Your task to perform on an android device: turn on airplane mode Image 0: 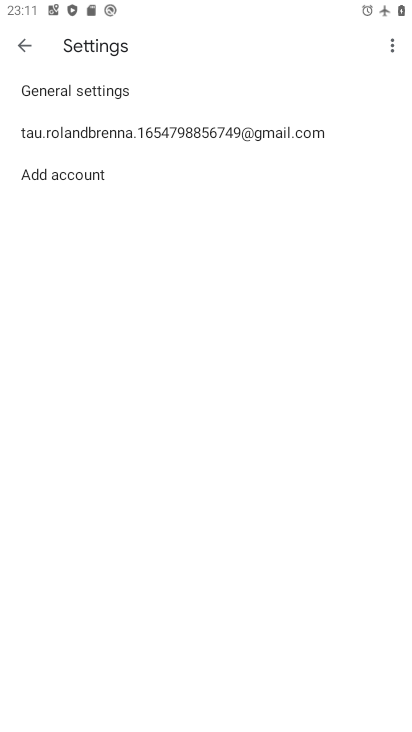
Step 0: press home button
Your task to perform on an android device: turn on airplane mode Image 1: 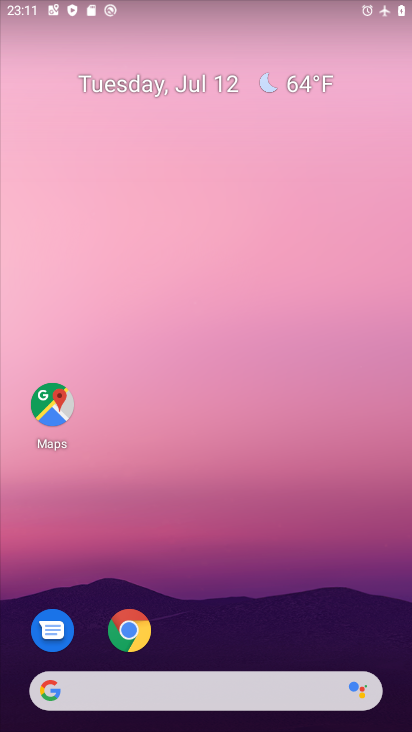
Step 1: drag from (210, 652) to (215, 0)
Your task to perform on an android device: turn on airplane mode Image 2: 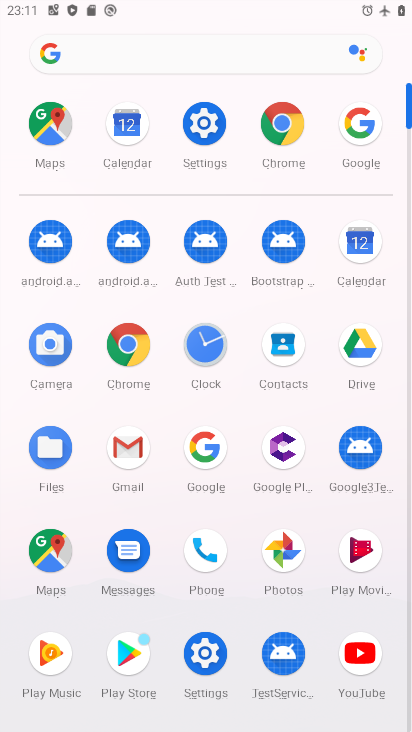
Step 2: click (201, 126)
Your task to perform on an android device: turn on airplane mode Image 3: 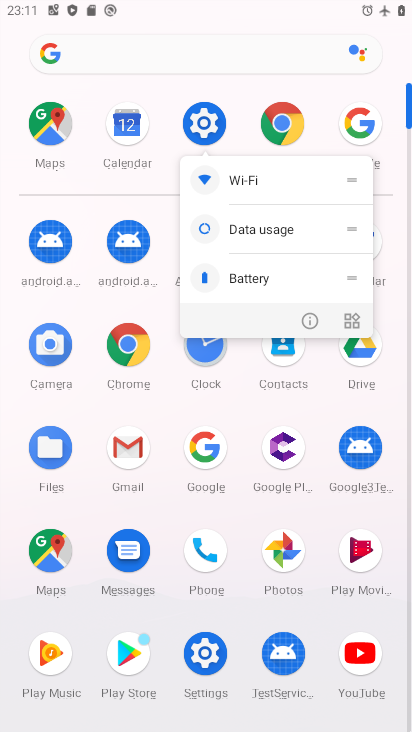
Step 3: click (194, 109)
Your task to perform on an android device: turn on airplane mode Image 4: 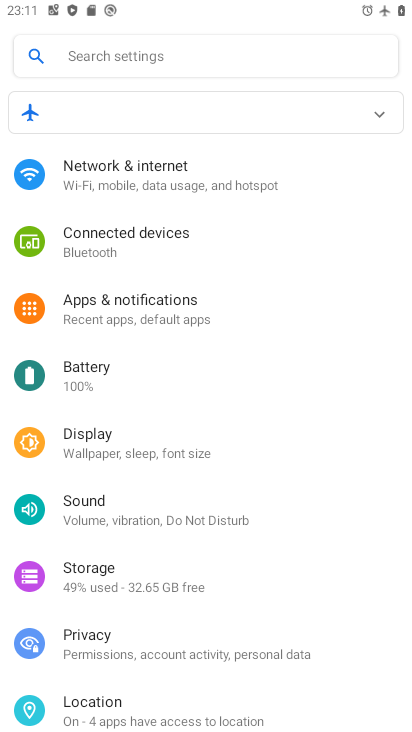
Step 4: click (146, 175)
Your task to perform on an android device: turn on airplane mode Image 5: 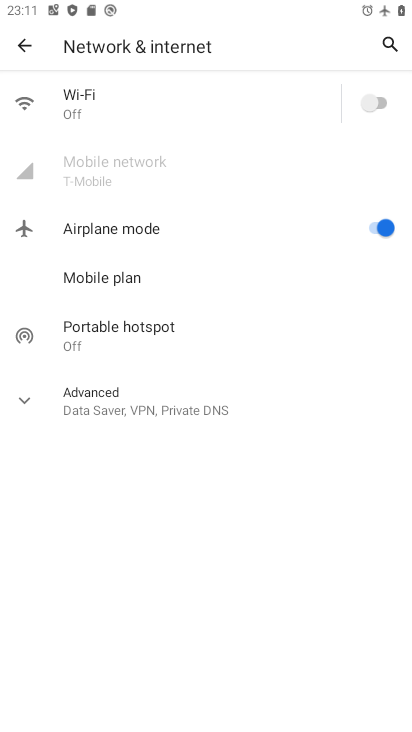
Step 5: task complete